Your task to perform on an android device: delete location history Image 0: 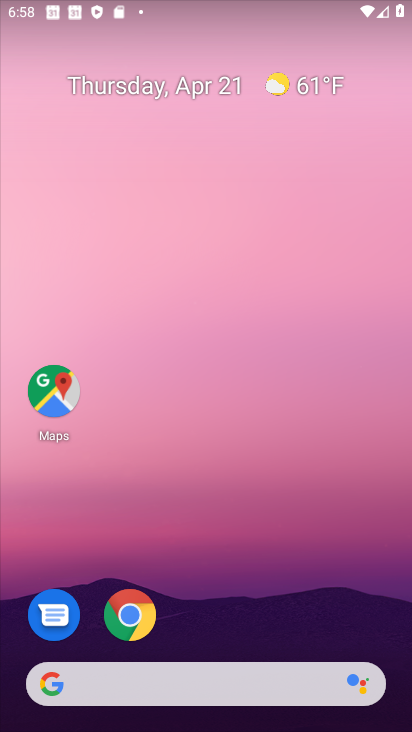
Step 0: click (358, 154)
Your task to perform on an android device: delete location history Image 1: 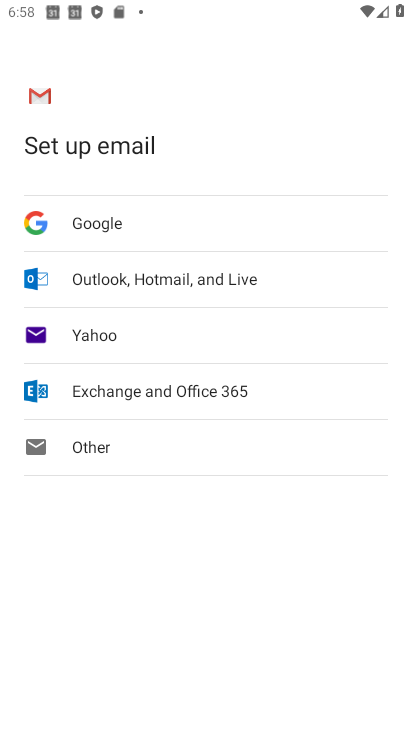
Step 1: click (180, 691)
Your task to perform on an android device: delete location history Image 2: 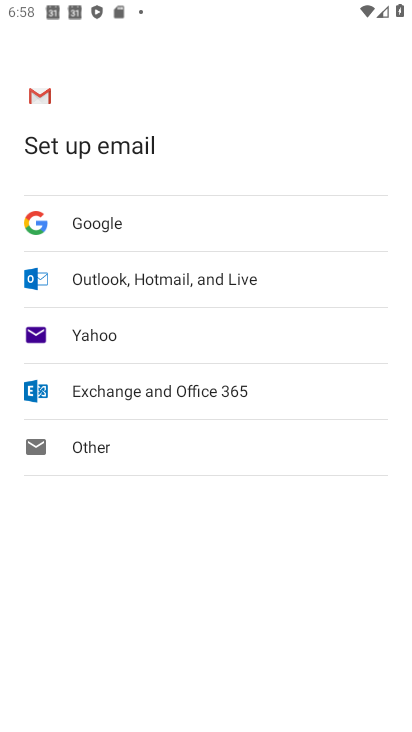
Step 2: press home button
Your task to perform on an android device: delete location history Image 3: 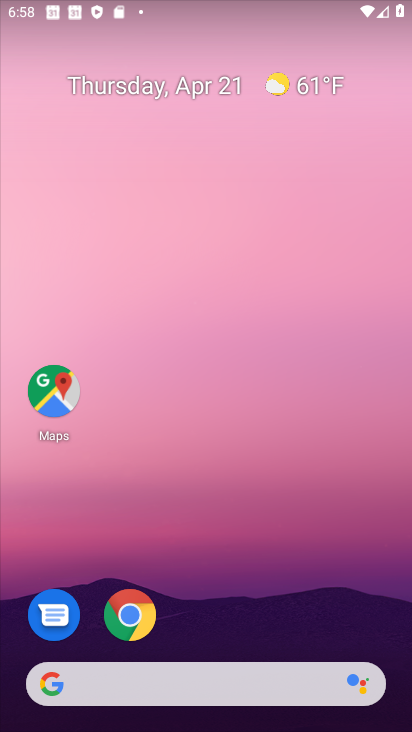
Step 3: drag from (186, 632) to (241, 189)
Your task to perform on an android device: delete location history Image 4: 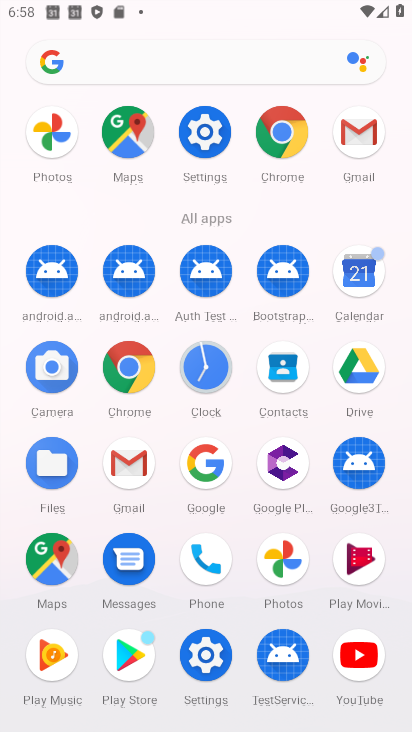
Step 4: click (201, 653)
Your task to perform on an android device: delete location history Image 5: 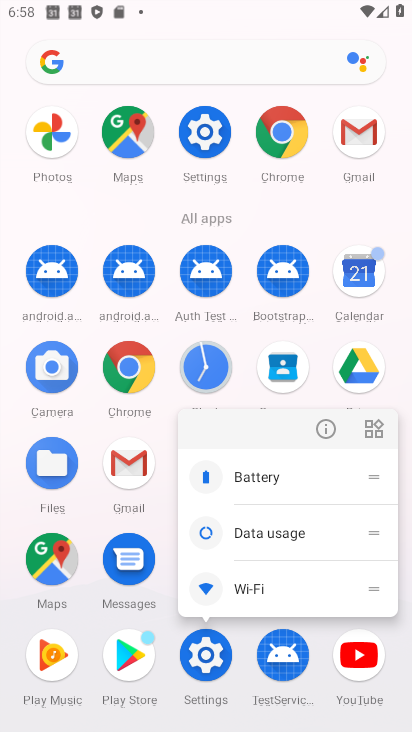
Step 5: click (330, 432)
Your task to perform on an android device: delete location history Image 6: 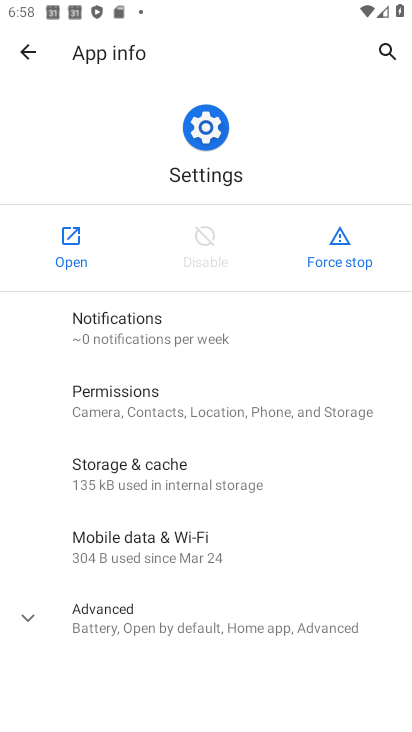
Step 6: click (70, 255)
Your task to perform on an android device: delete location history Image 7: 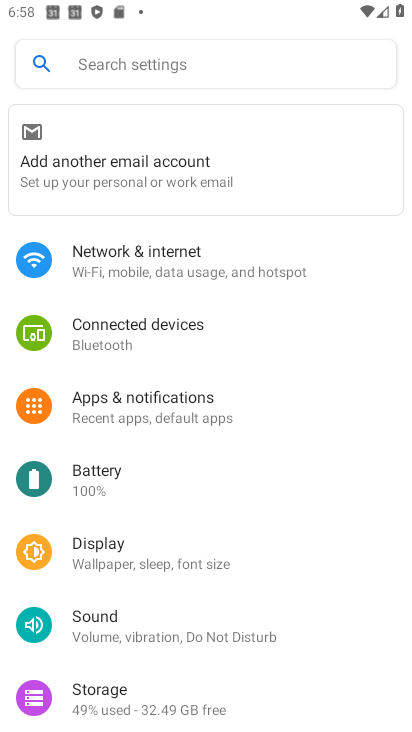
Step 7: drag from (152, 649) to (179, 276)
Your task to perform on an android device: delete location history Image 8: 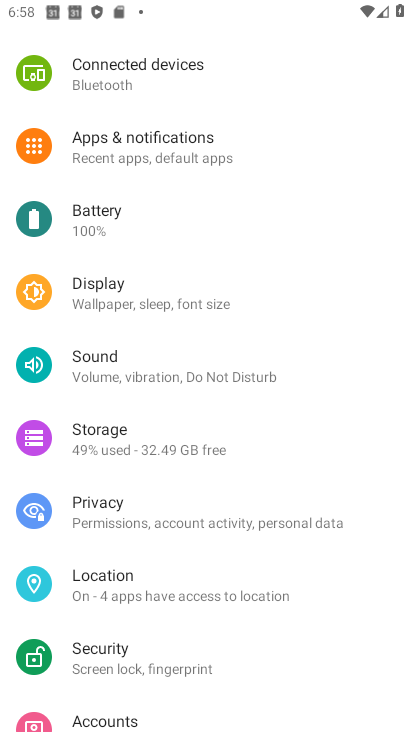
Step 8: click (120, 608)
Your task to perform on an android device: delete location history Image 9: 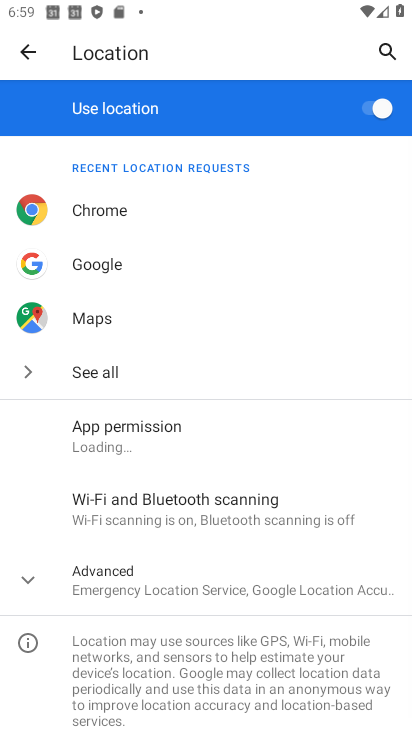
Step 9: drag from (176, 629) to (279, 458)
Your task to perform on an android device: delete location history Image 10: 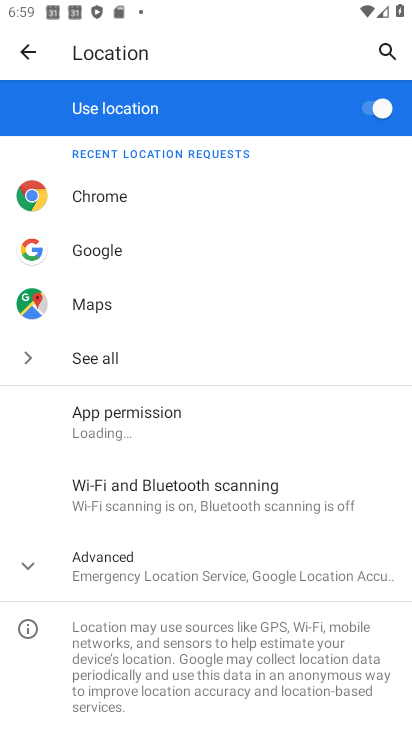
Step 10: click (110, 577)
Your task to perform on an android device: delete location history Image 11: 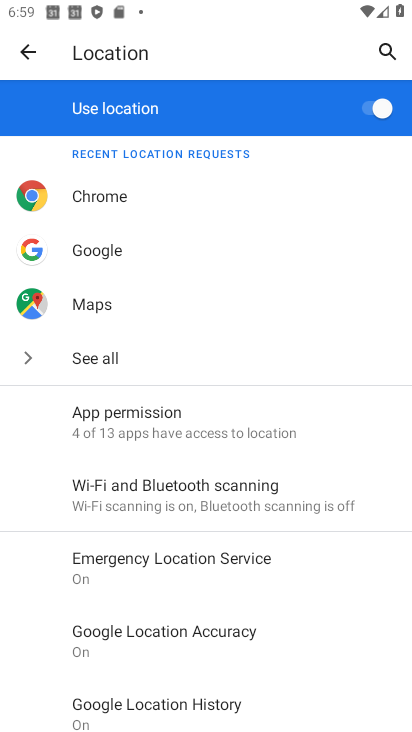
Step 11: click (223, 709)
Your task to perform on an android device: delete location history Image 12: 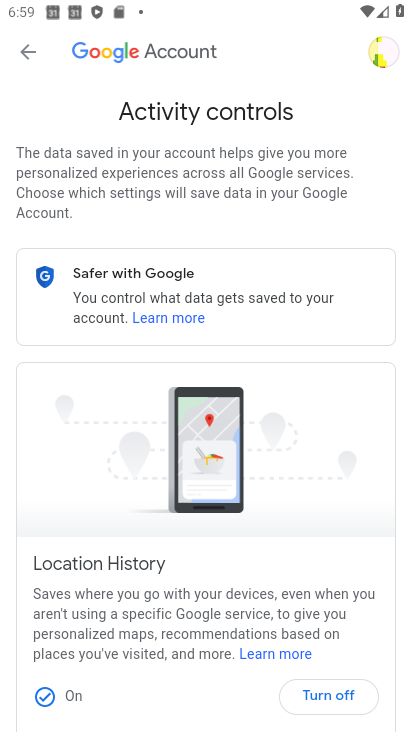
Step 12: drag from (218, 585) to (217, 376)
Your task to perform on an android device: delete location history Image 13: 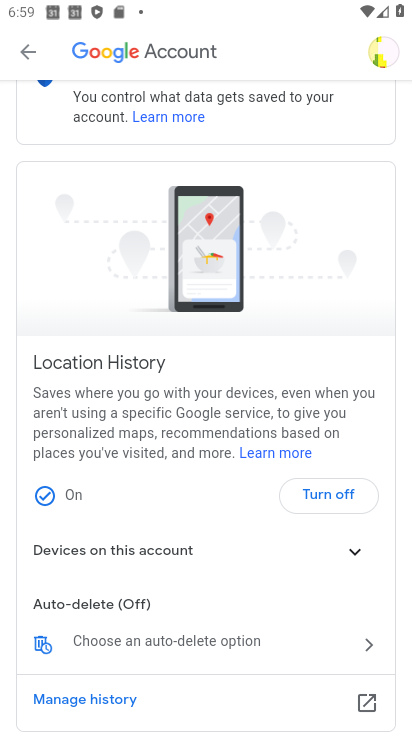
Step 13: click (332, 495)
Your task to perform on an android device: delete location history Image 14: 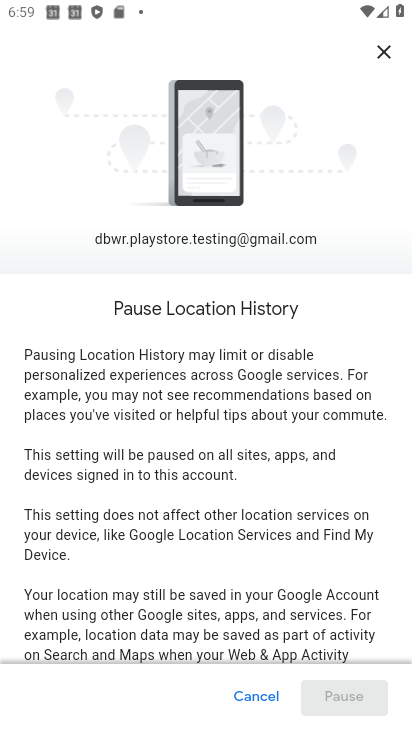
Step 14: drag from (191, 573) to (269, 293)
Your task to perform on an android device: delete location history Image 15: 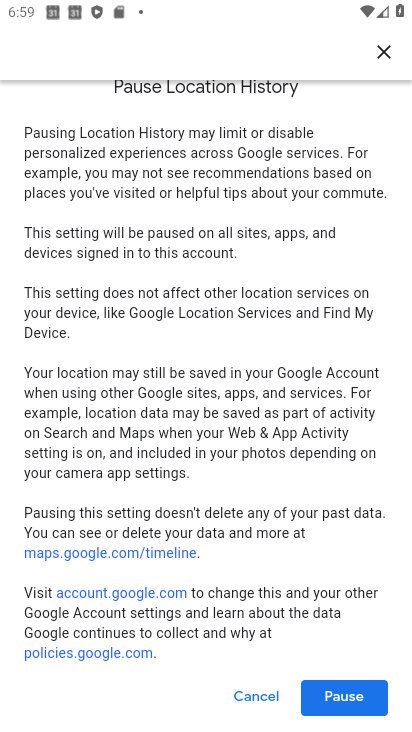
Step 15: drag from (295, 628) to (379, 163)
Your task to perform on an android device: delete location history Image 16: 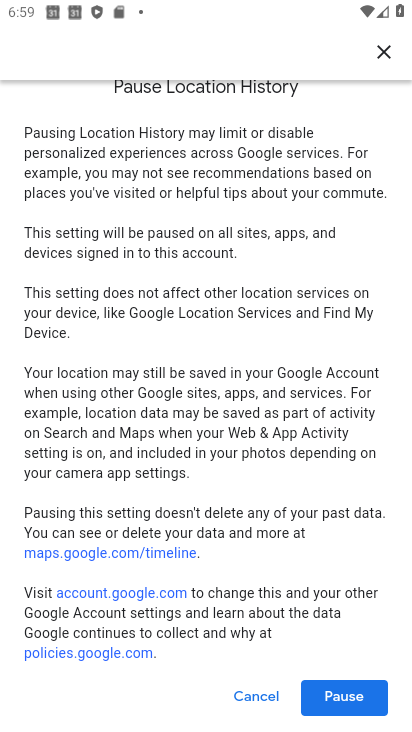
Step 16: click (351, 694)
Your task to perform on an android device: delete location history Image 17: 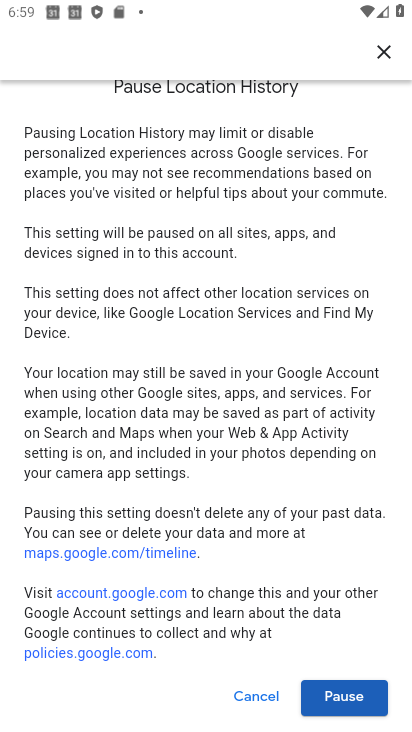
Step 17: click (363, 687)
Your task to perform on an android device: delete location history Image 18: 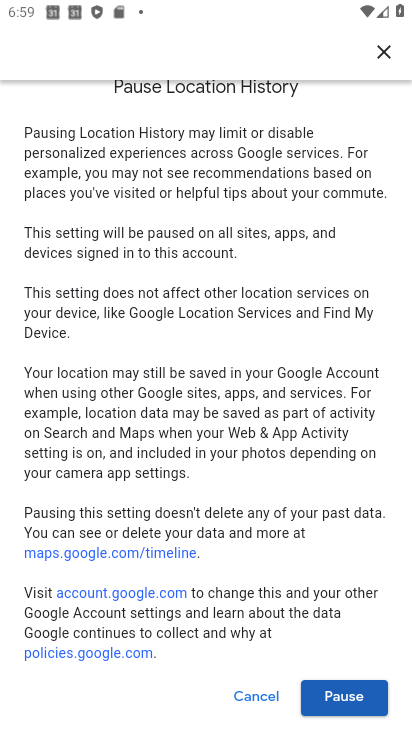
Step 18: task complete